Your task to perform on an android device: open a bookmark in the chrome app Image 0: 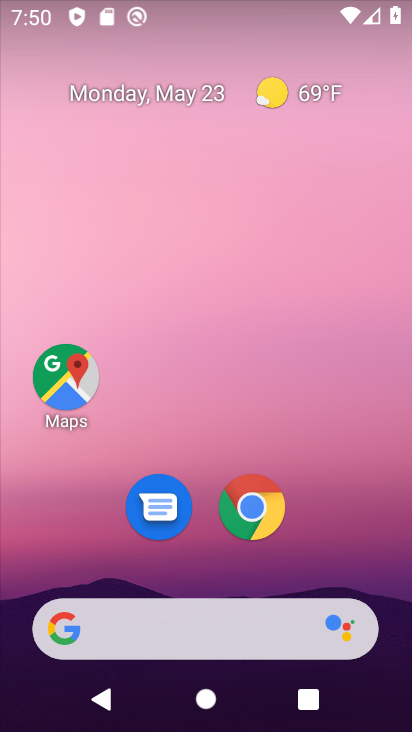
Step 0: click (265, 511)
Your task to perform on an android device: open a bookmark in the chrome app Image 1: 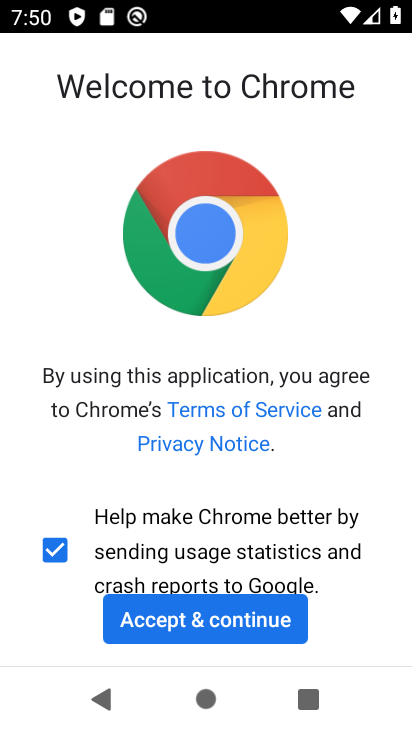
Step 1: click (160, 612)
Your task to perform on an android device: open a bookmark in the chrome app Image 2: 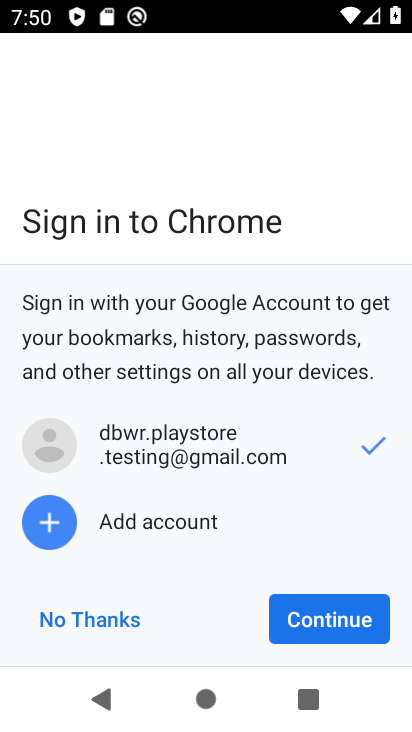
Step 2: click (106, 612)
Your task to perform on an android device: open a bookmark in the chrome app Image 3: 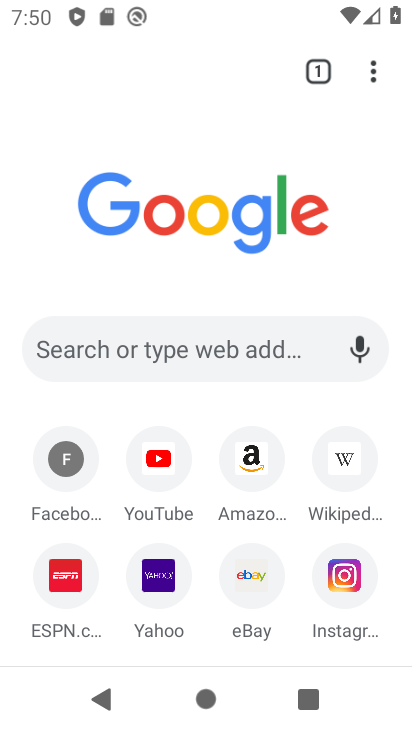
Step 3: drag from (374, 74) to (145, 285)
Your task to perform on an android device: open a bookmark in the chrome app Image 4: 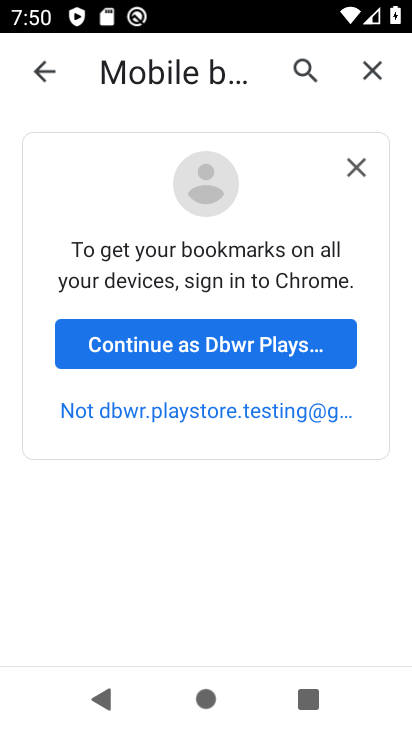
Step 4: click (148, 336)
Your task to perform on an android device: open a bookmark in the chrome app Image 5: 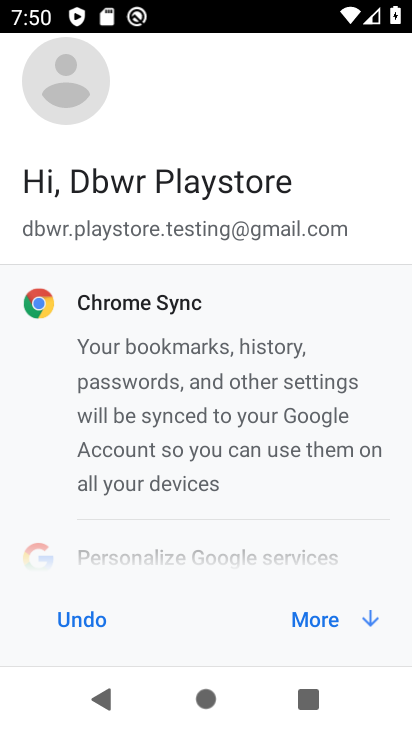
Step 5: click (297, 611)
Your task to perform on an android device: open a bookmark in the chrome app Image 6: 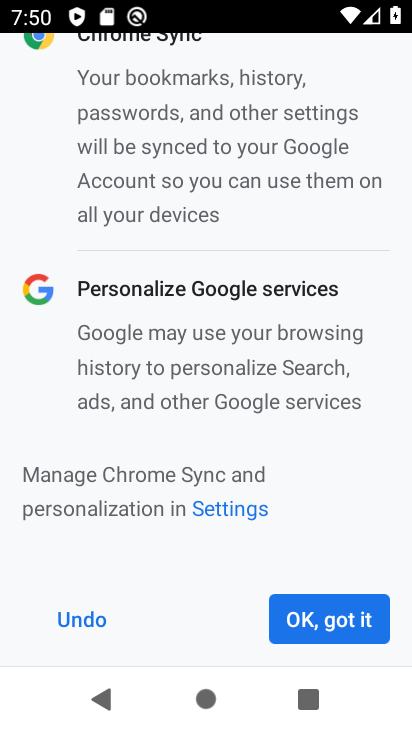
Step 6: click (297, 611)
Your task to perform on an android device: open a bookmark in the chrome app Image 7: 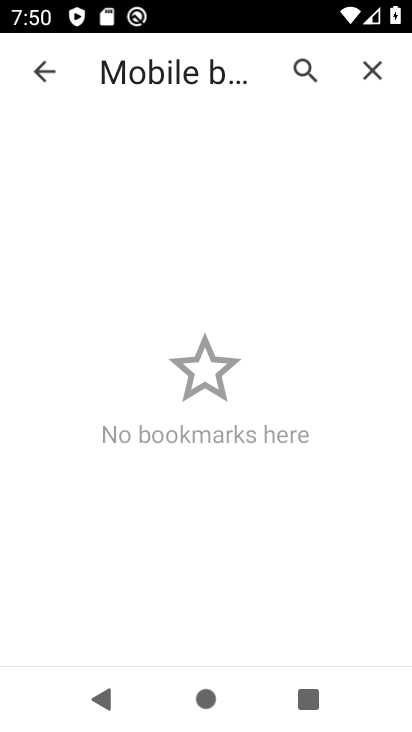
Step 7: task complete